Your task to perform on an android device: Open CNN.com Image 0: 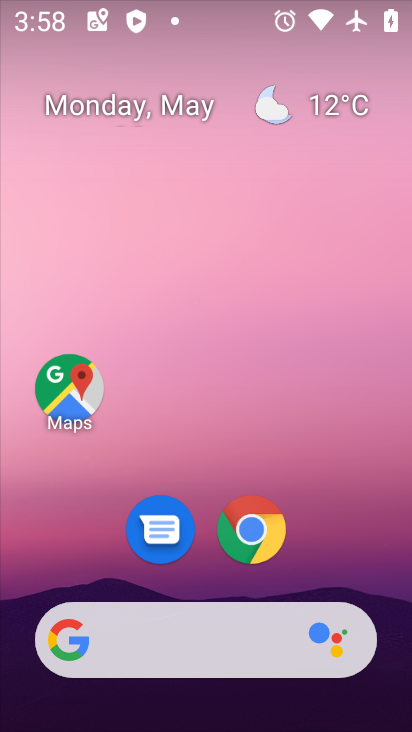
Step 0: click (250, 532)
Your task to perform on an android device: Open CNN.com Image 1: 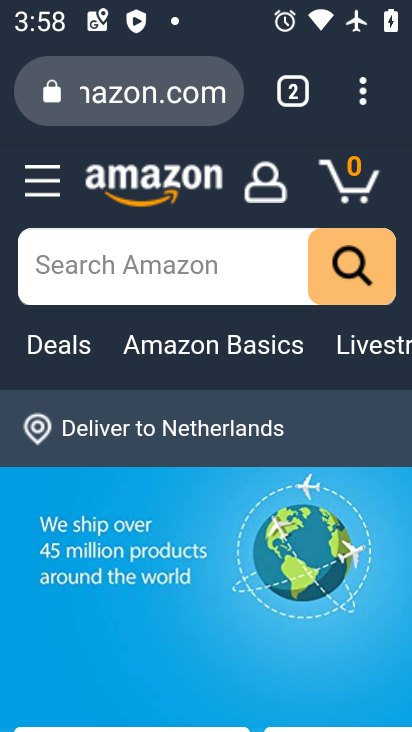
Step 1: click (176, 109)
Your task to perform on an android device: Open CNN.com Image 2: 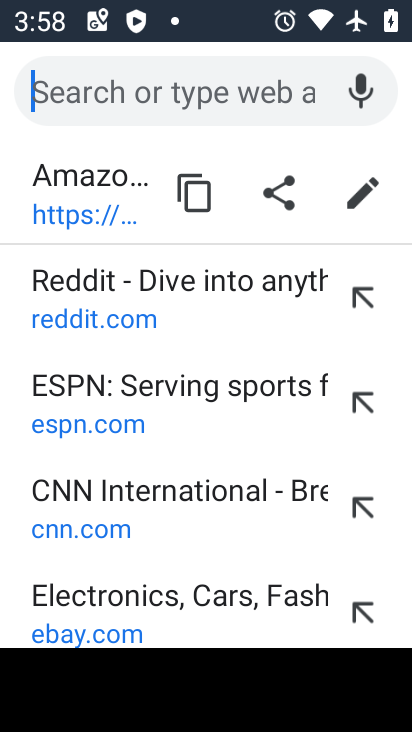
Step 2: type "CNN.com"
Your task to perform on an android device: Open CNN.com Image 3: 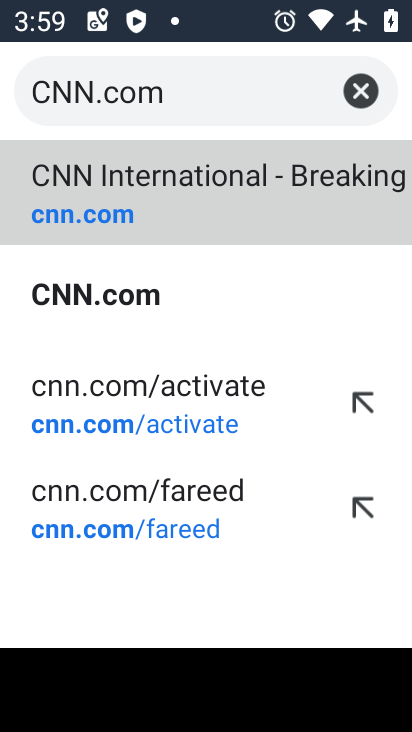
Step 3: click (59, 207)
Your task to perform on an android device: Open CNN.com Image 4: 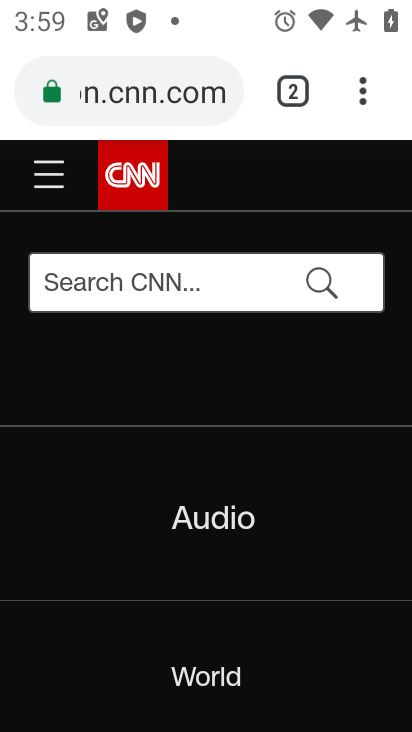
Step 4: task complete